Your task to perform on an android device: turn on translation in the chrome app Image 0: 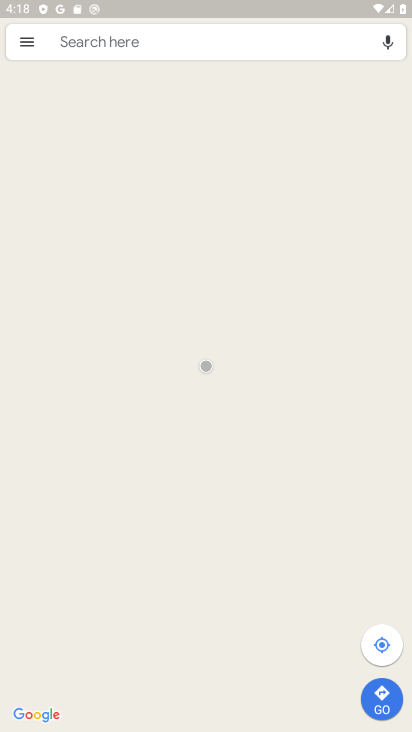
Step 0: press back button
Your task to perform on an android device: turn on translation in the chrome app Image 1: 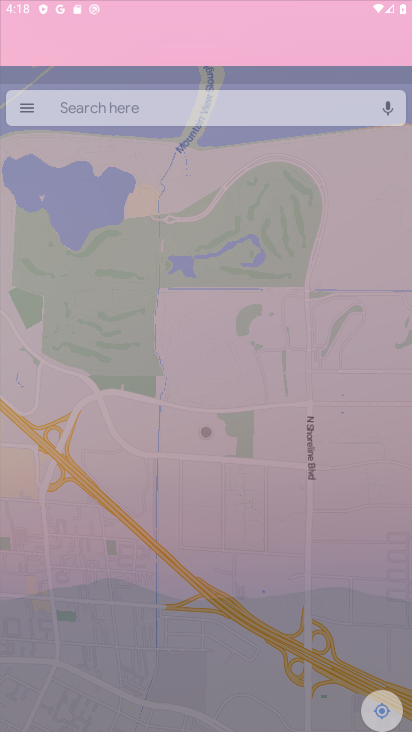
Step 1: press back button
Your task to perform on an android device: turn on translation in the chrome app Image 2: 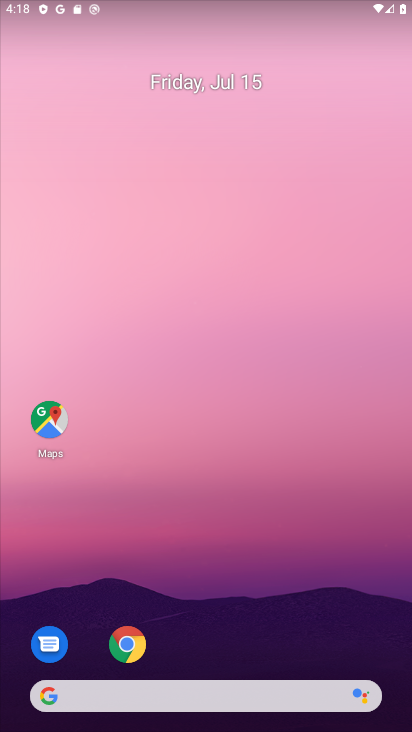
Step 2: press back button
Your task to perform on an android device: turn on translation in the chrome app Image 3: 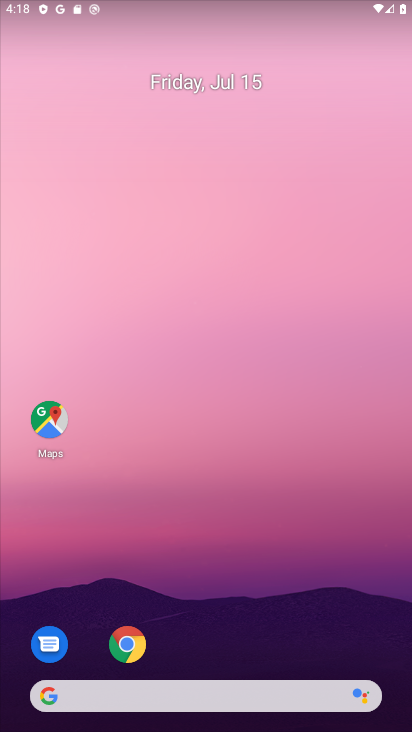
Step 3: click (129, 644)
Your task to perform on an android device: turn on translation in the chrome app Image 4: 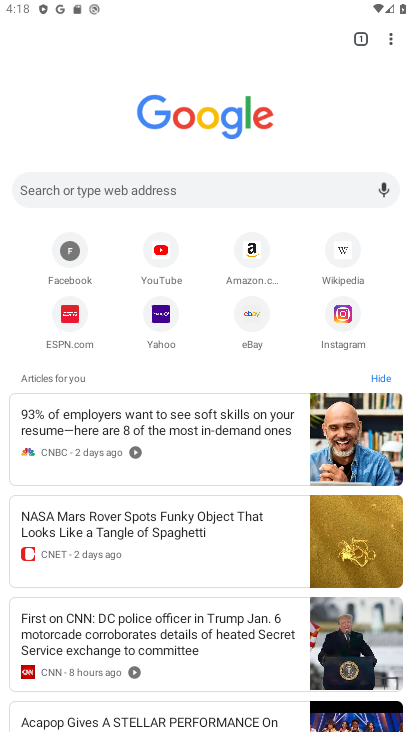
Step 4: click (392, 45)
Your task to perform on an android device: turn on translation in the chrome app Image 5: 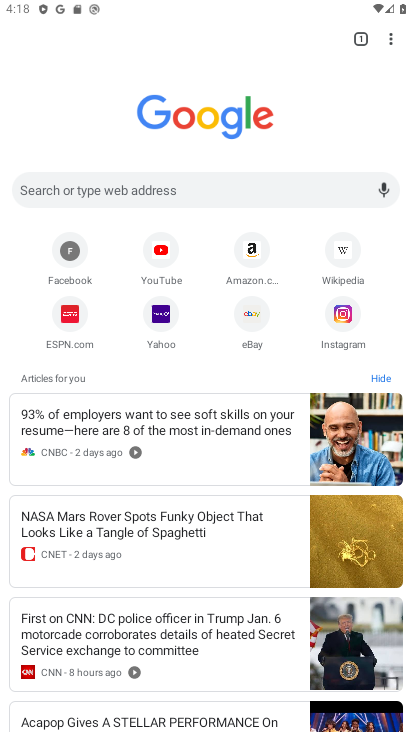
Step 5: click (387, 47)
Your task to perform on an android device: turn on translation in the chrome app Image 6: 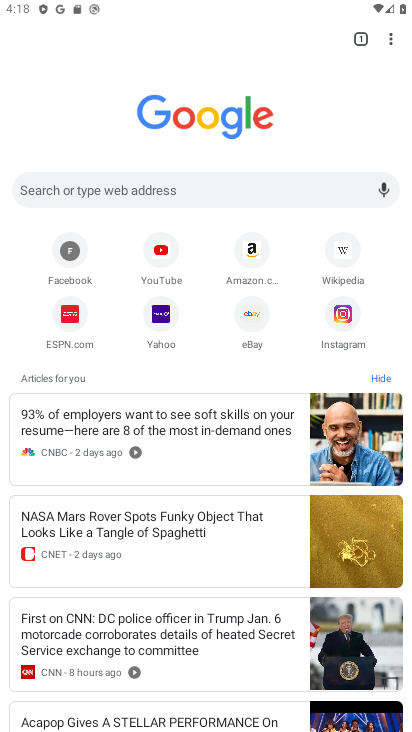
Step 6: click (387, 38)
Your task to perform on an android device: turn on translation in the chrome app Image 7: 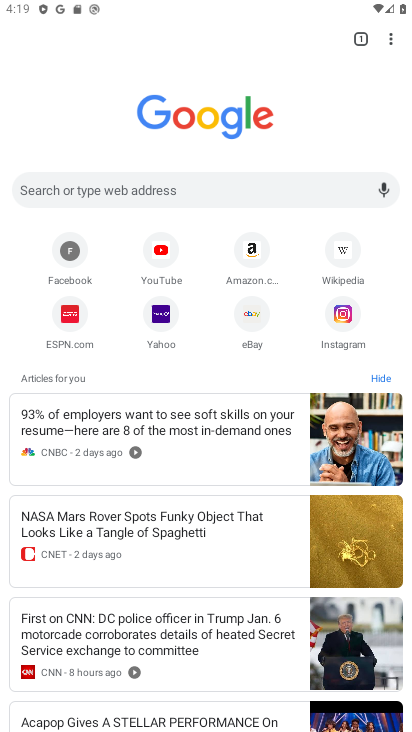
Step 7: click (380, 38)
Your task to perform on an android device: turn on translation in the chrome app Image 8: 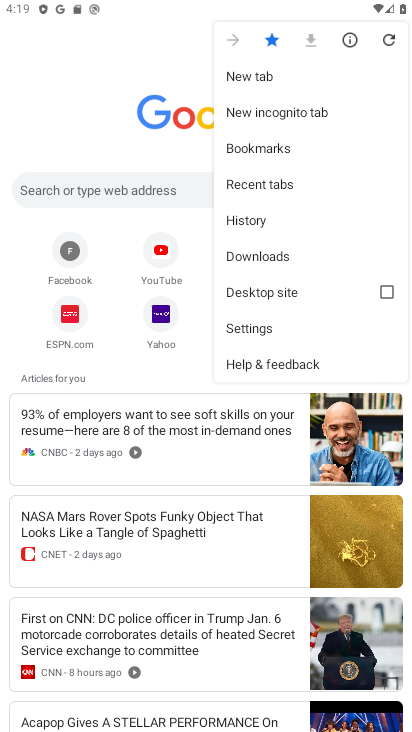
Step 8: click (262, 330)
Your task to perform on an android device: turn on translation in the chrome app Image 9: 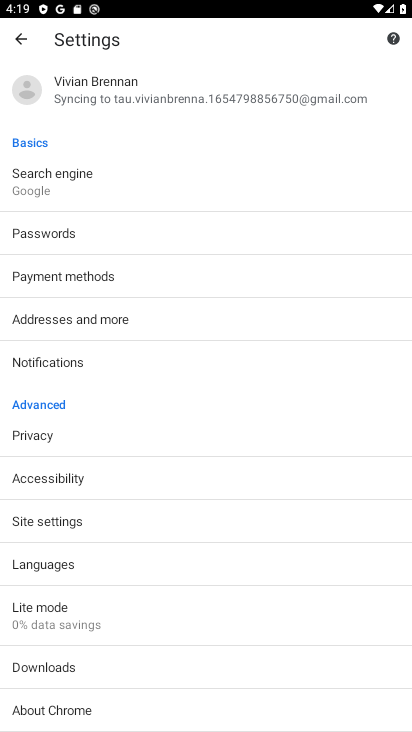
Step 9: click (105, 561)
Your task to perform on an android device: turn on translation in the chrome app Image 10: 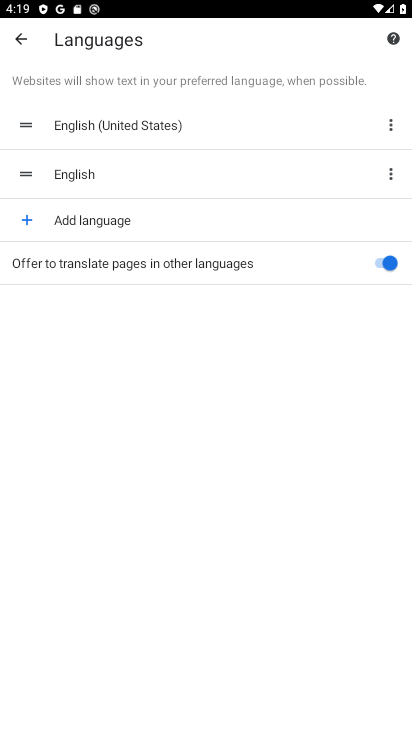
Step 10: task complete